Your task to perform on an android device: toggle notifications settings in the gmail app Image 0: 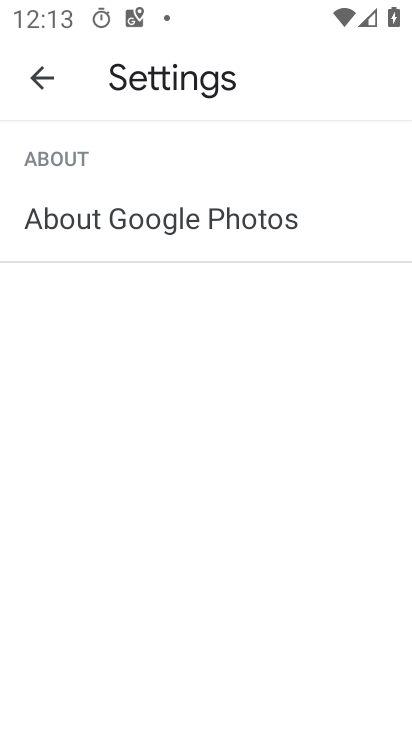
Step 0: press home button
Your task to perform on an android device: toggle notifications settings in the gmail app Image 1: 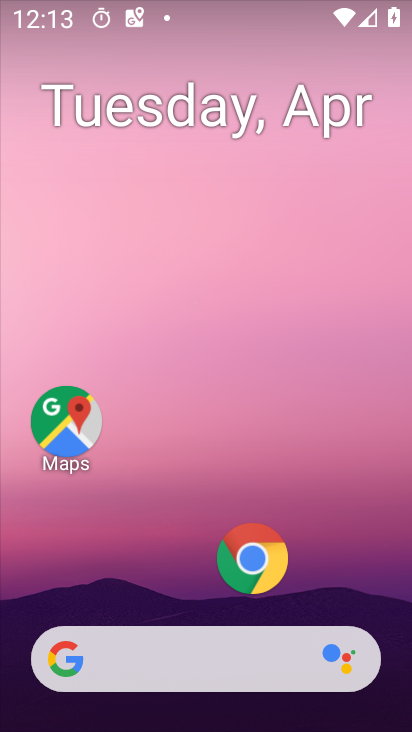
Step 1: drag from (130, 546) to (159, 83)
Your task to perform on an android device: toggle notifications settings in the gmail app Image 2: 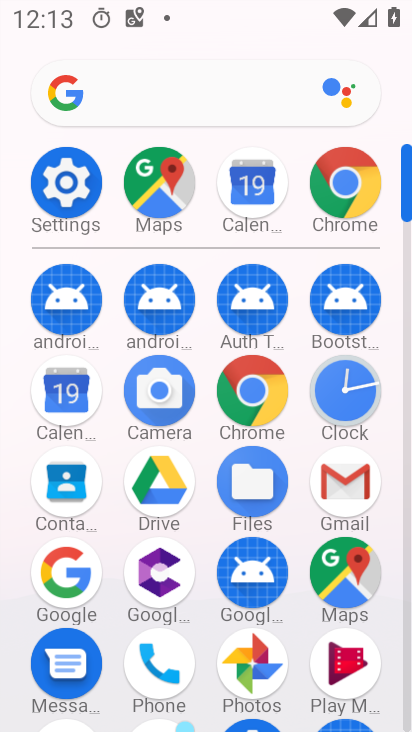
Step 2: click (347, 470)
Your task to perform on an android device: toggle notifications settings in the gmail app Image 3: 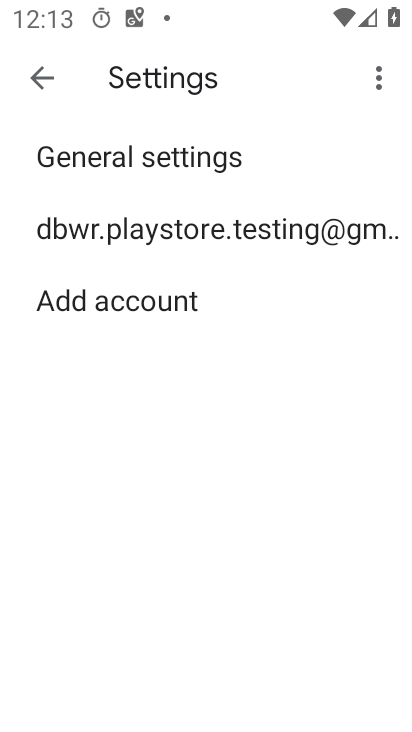
Step 3: click (113, 216)
Your task to perform on an android device: toggle notifications settings in the gmail app Image 4: 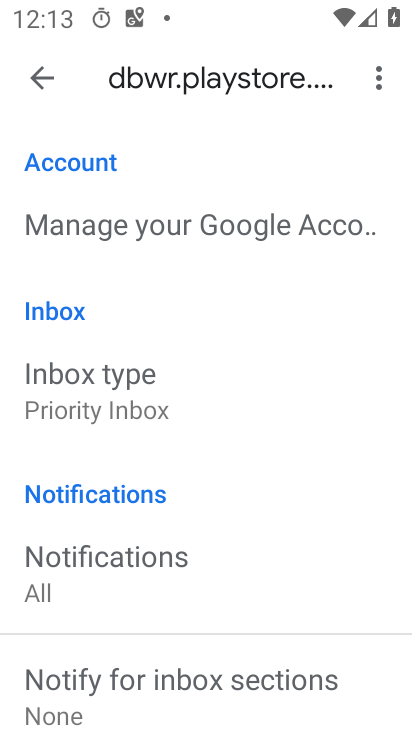
Step 4: drag from (227, 700) to (256, 410)
Your task to perform on an android device: toggle notifications settings in the gmail app Image 5: 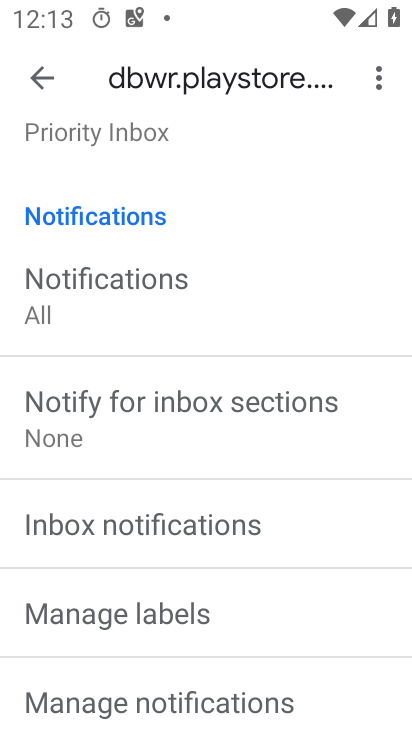
Step 5: drag from (227, 588) to (251, 338)
Your task to perform on an android device: toggle notifications settings in the gmail app Image 6: 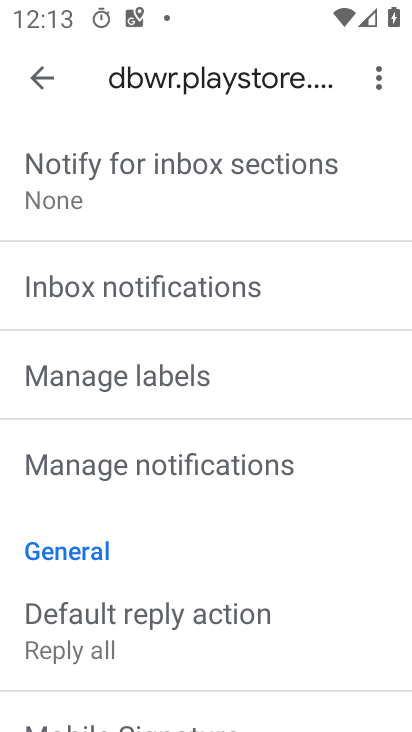
Step 6: drag from (179, 587) to (231, 277)
Your task to perform on an android device: toggle notifications settings in the gmail app Image 7: 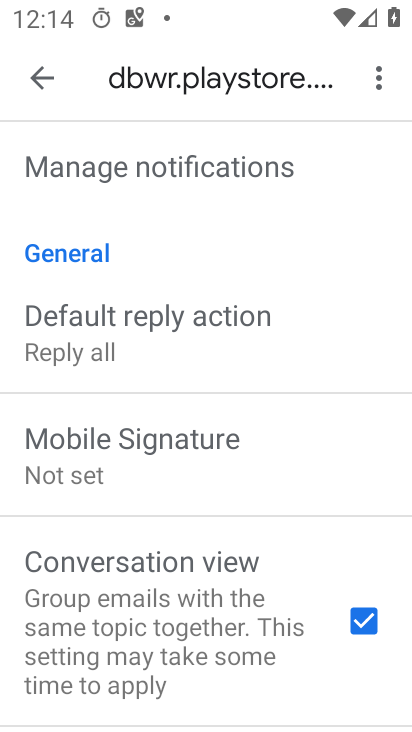
Step 7: click (157, 164)
Your task to perform on an android device: toggle notifications settings in the gmail app Image 8: 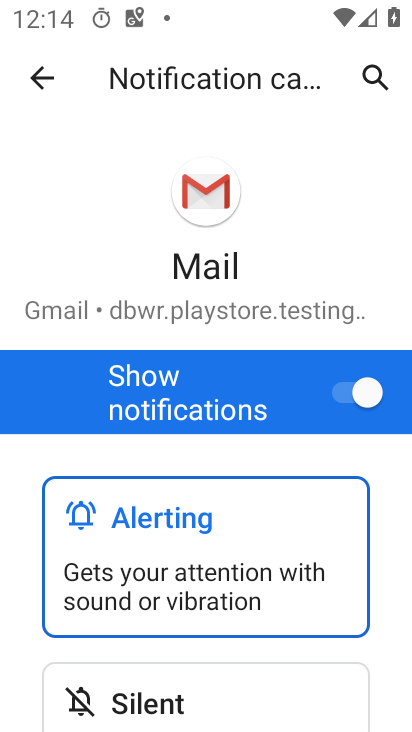
Step 8: click (338, 391)
Your task to perform on an android device: toggle notifications settings in the gmail app Image 9: 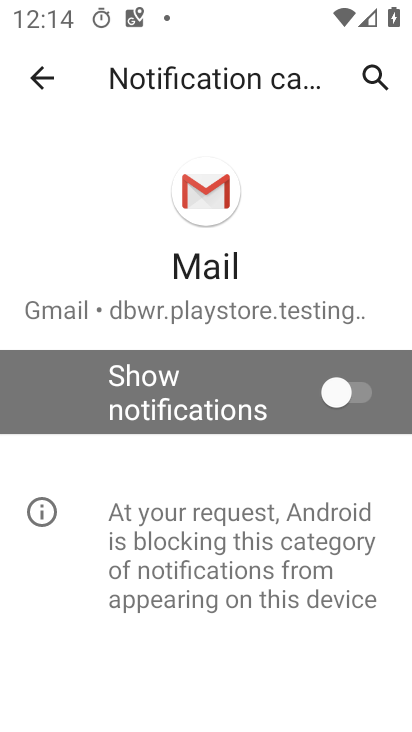
Step 9: task complete